Your task to perform on an android device: Clear all items from cart on ebay.com. Search for "razer huntsman" on ebay.com, select the first entry, and add it to the cart. Image 0: 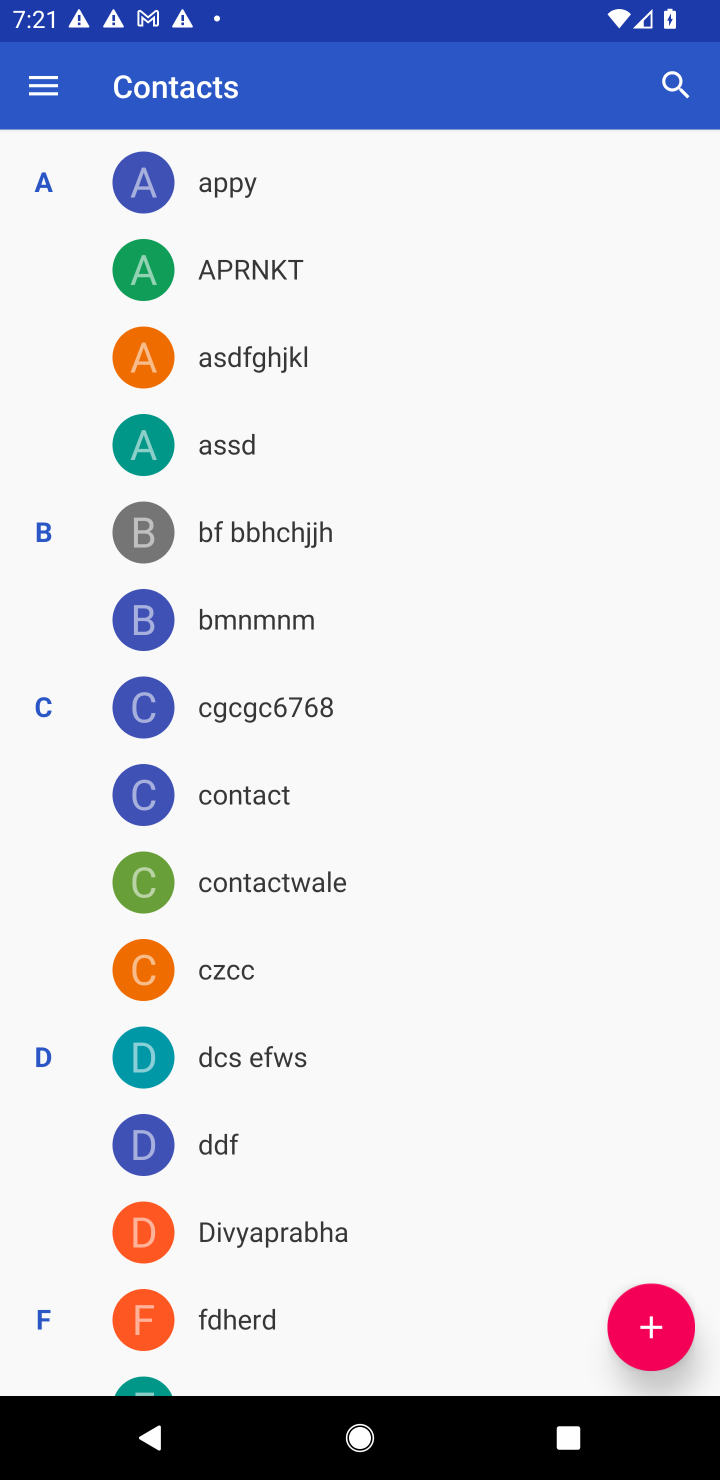
Step 0: press home button
Your task to perform on an android device: Clear all items from cart on ebay.com. Search for "razer huntsman" on ebay.com, select the first entry, and add it to the cart. Image 1: 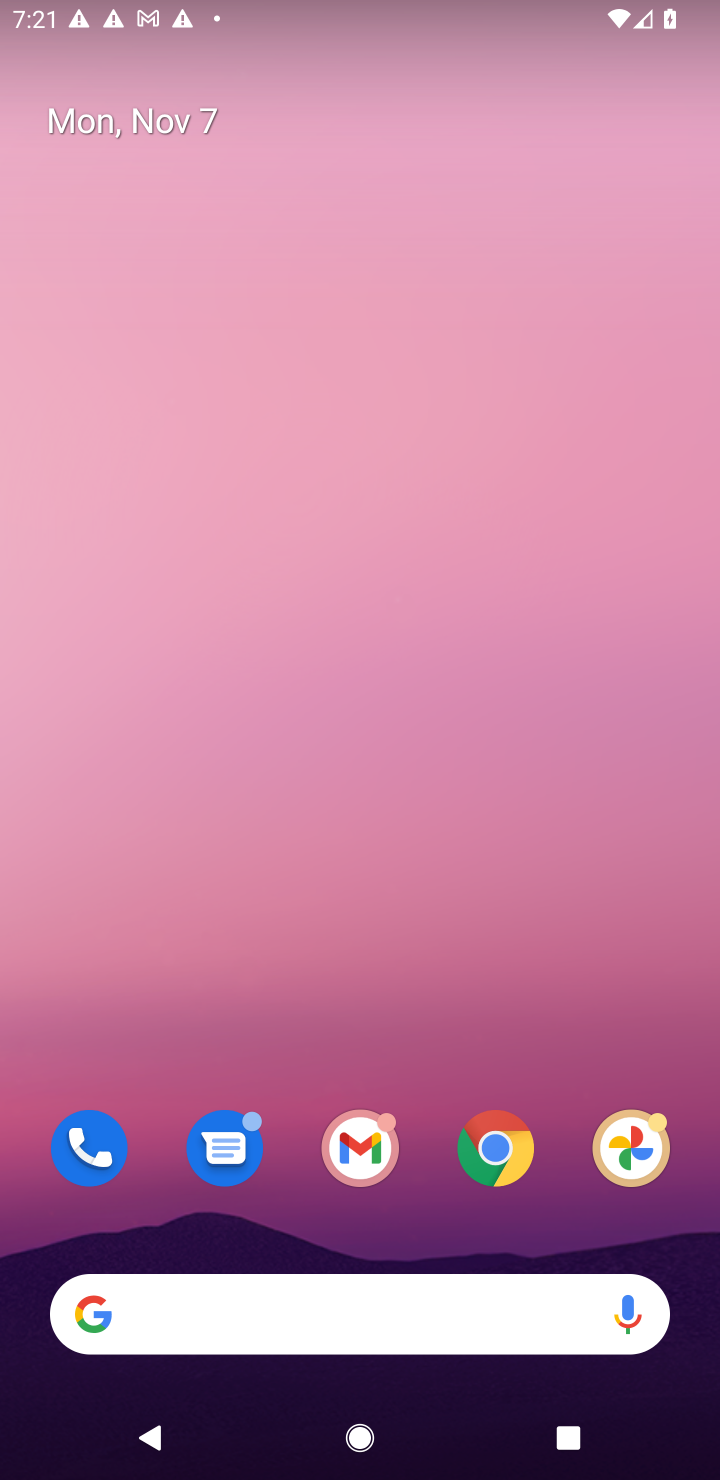
Step 1: click (496, 1150)
Your task to perform on an android device: Clear all items from cart on ebay.com. Search for "razer huntsman" on ebay.com, select the first entry, and add it to the cart. Image 2: 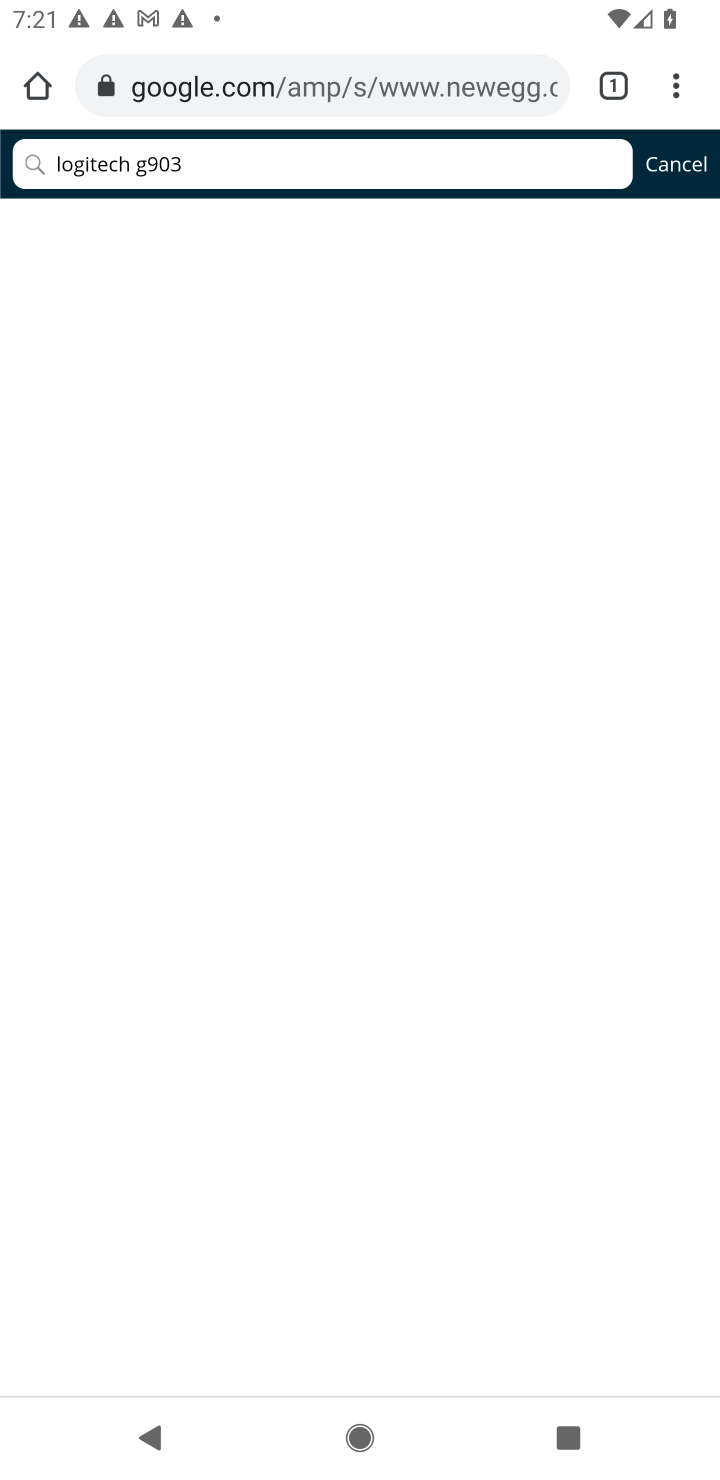
Step 2: click (474, 94)
Your task to perform on an android device: Clear all items from cart on ebay.com. Search for "razer huntsman" on ebay.com, select the first entry, and add it to the cart. Image 3: 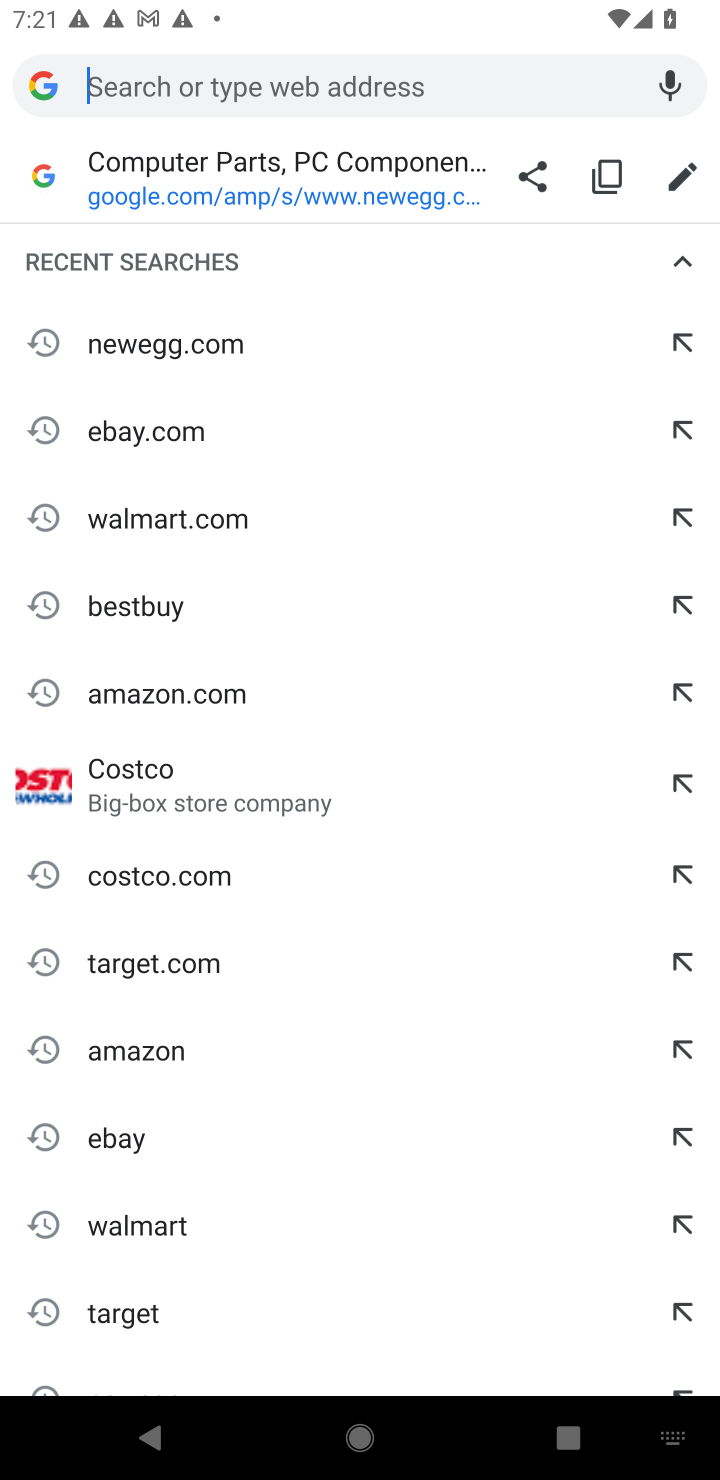
Step 3: type "ebay.com"
Your task to perform on an android device: Clear all items from cart on ebay.com. Search for "razer huntsman" on ebay.com, select the first entry, and add it to the cart. Image 4: 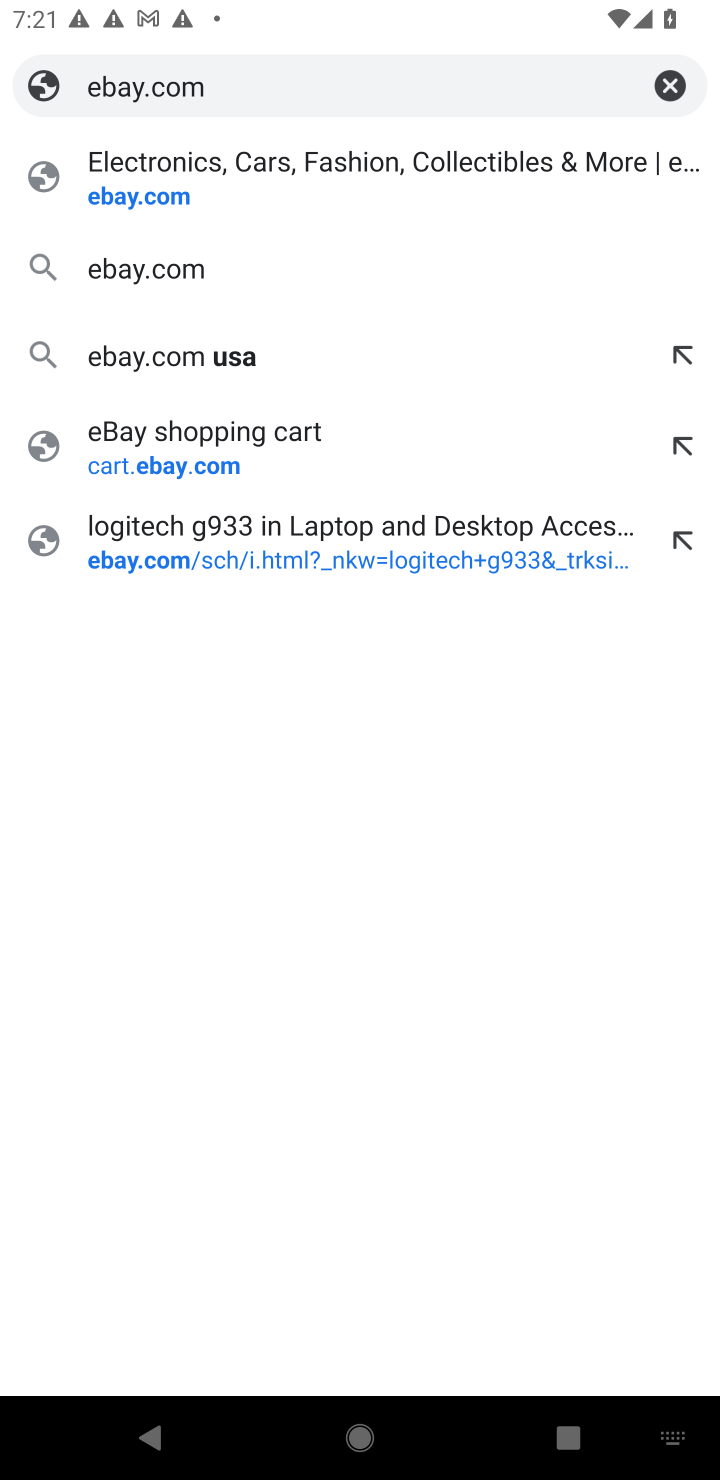
Step 4: click (188, 268)
Your task to perform on an android device: Clear all items from cart on ebay.com. Search for "razer huntsman" on ebay.com, select the first entry, and add it to the cart. Image 5: 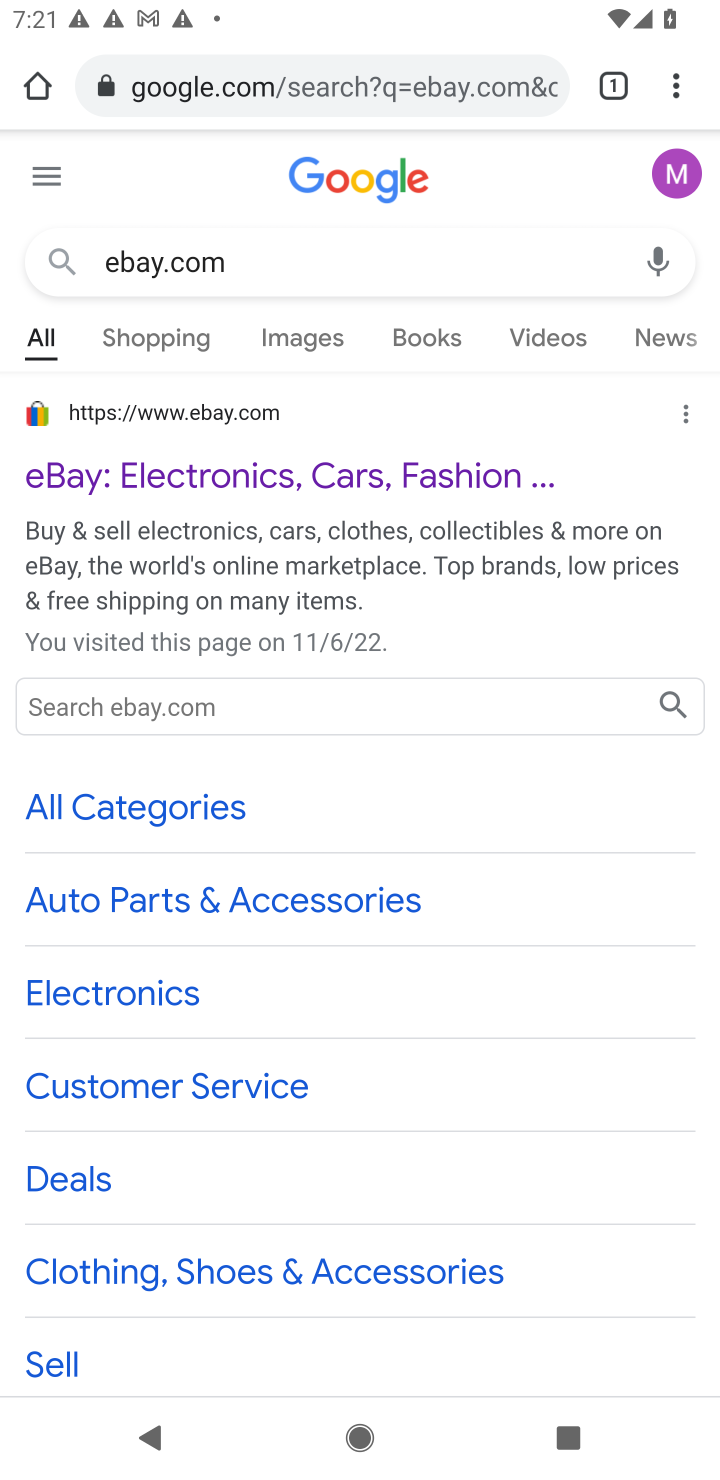
Step 5: click (232, 405)
Your task to perform on an android device: Clear all items from cart on ebay.com. Search for "razer huntsman" on ebay.com, select the first entry, and add it to the cart. Image 6: 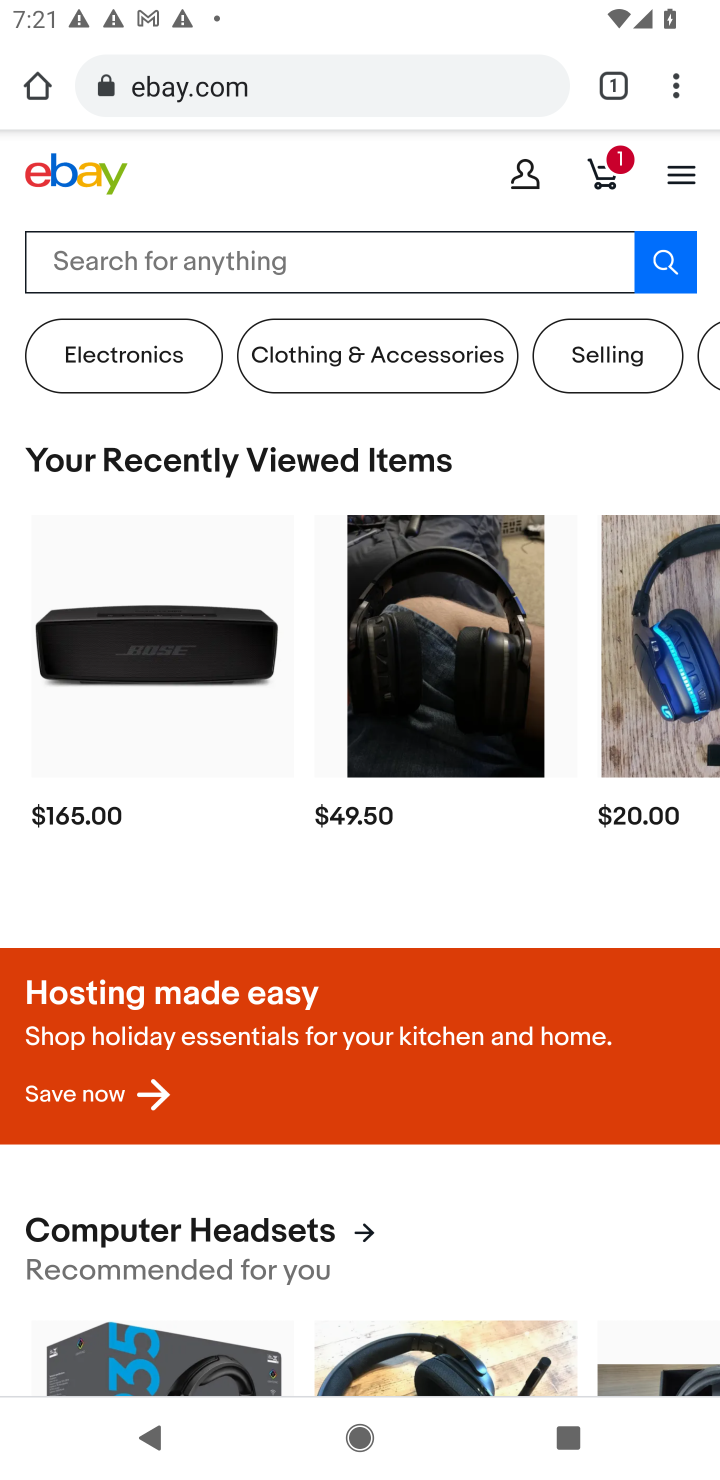
Step 6: click (609, 178)
Your task to perform on an android device: Clear all items from cart on ebay.com. Search for "razer huntsman" on ebay.com, select the first entry, and add it to the cart. Image 7: 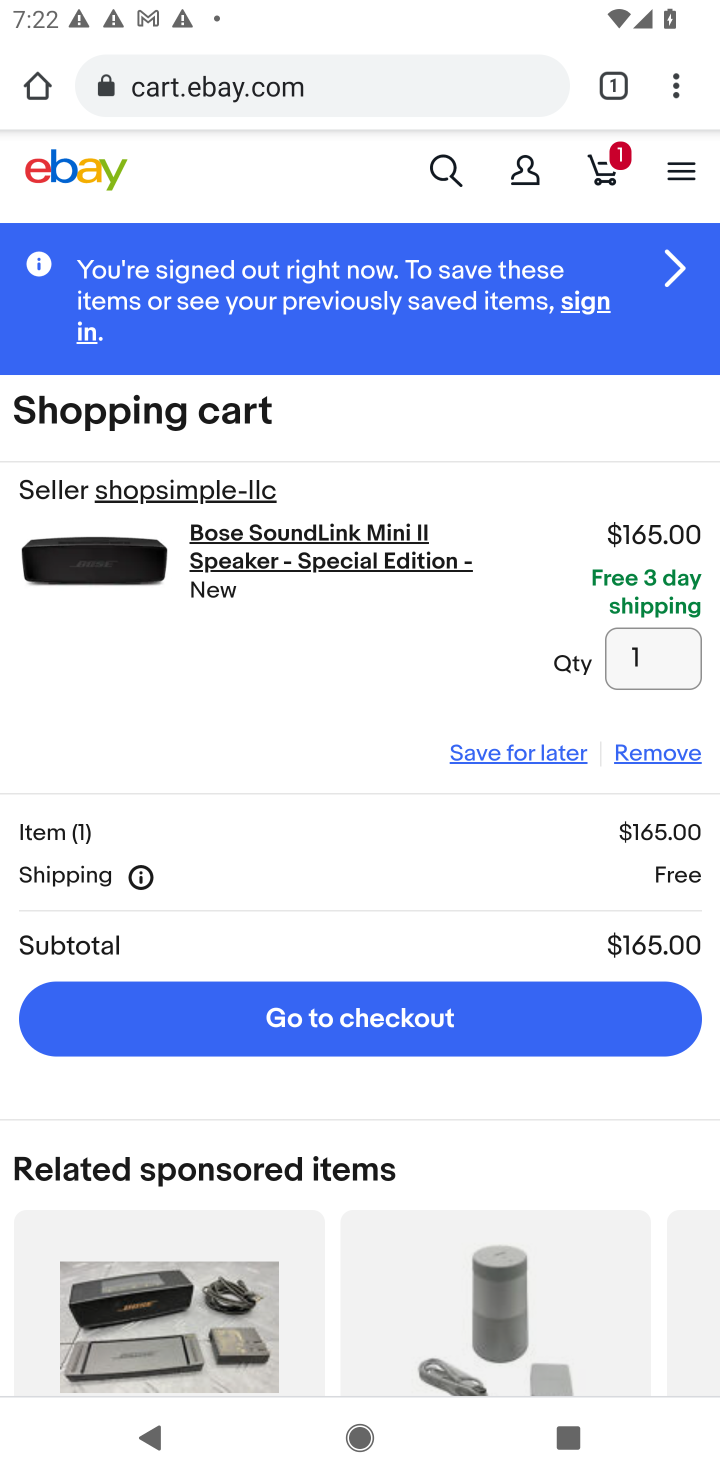
Step 7: click (596, 172)
Your task to perform on an android device: Clear all items from cart on ebay.com. Search for "razer huntsman" on ebay.com, select the first entry, and add it to the cart. Image 8: 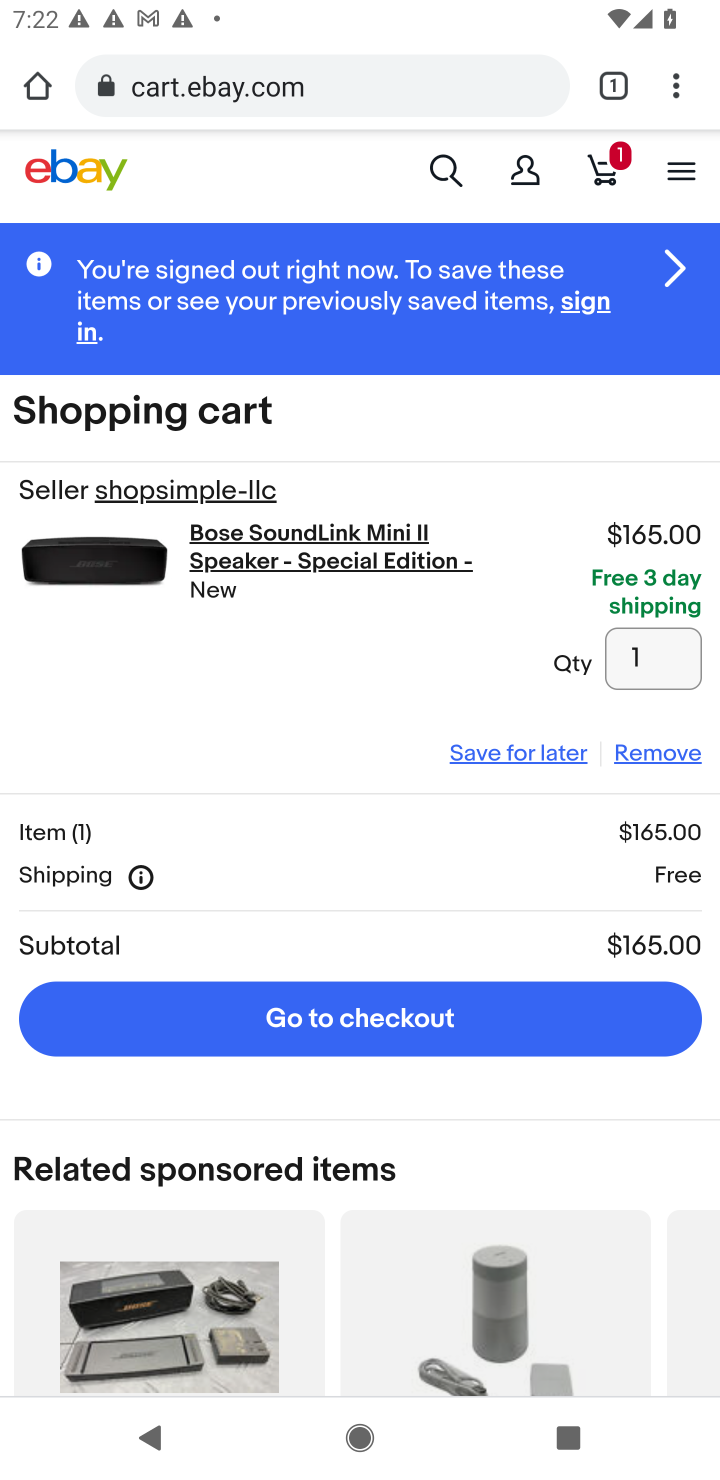
Step 8: click (658, 759)
Your task to perform on an android device: Clear all items from cart on ebay.com. Search for "razer huntsman" on ebay.com, select the first entry, and add it to the cart. Image 9: 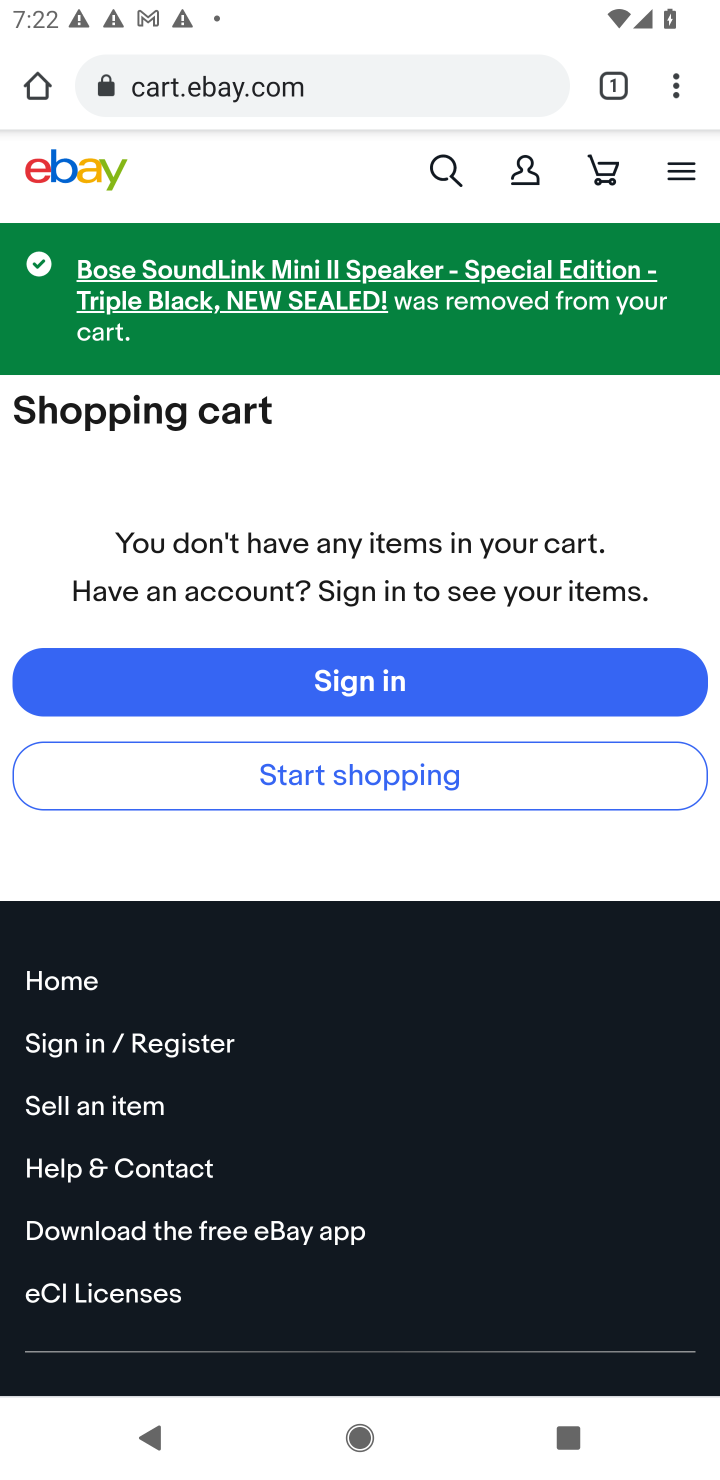
Step 9: click (436, 173)
Your task to perform on an android device: Clear all items from cart on ebay.com. Search for "razer huntsman" on ebay.com, select the first entry, and add it to the cart. Image 10: 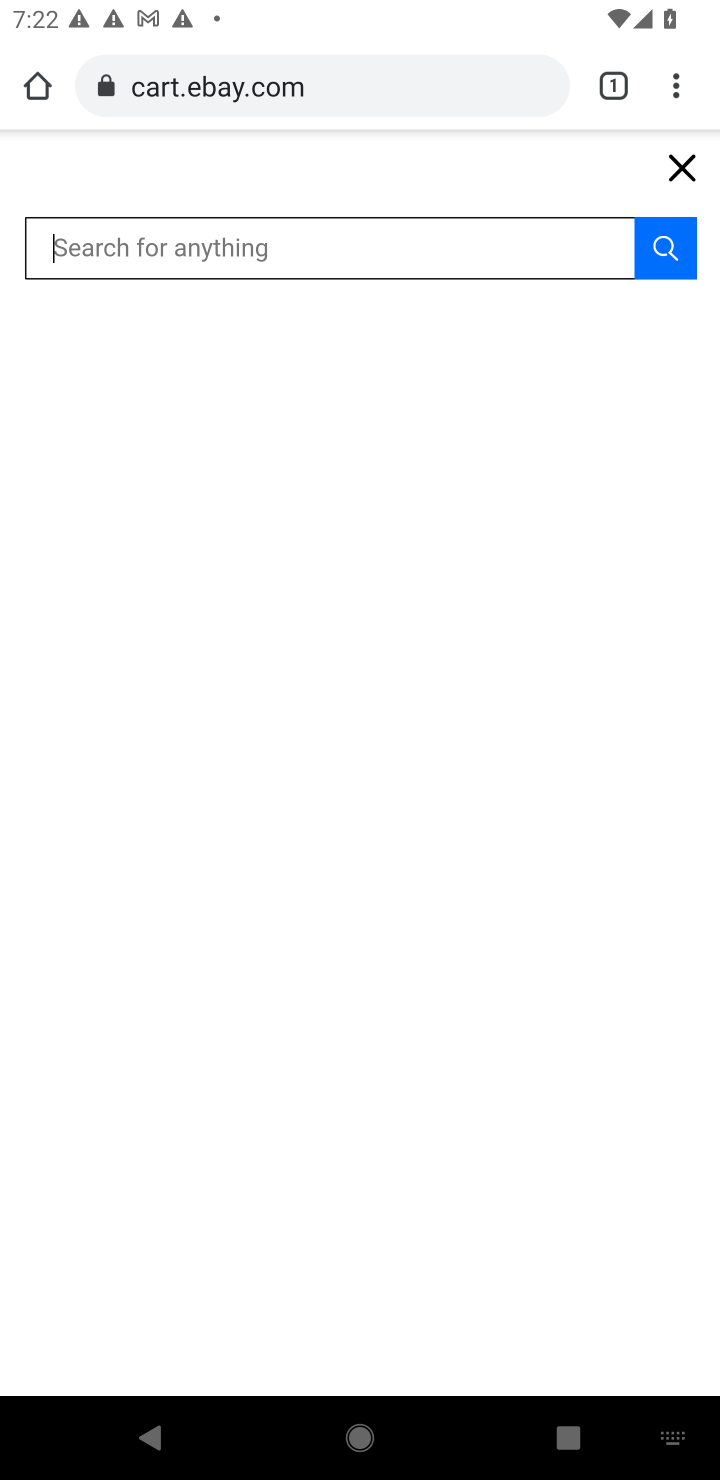
Step 10: type "razer huntsman"
Your task to perform on an android device: Clear all items from cart on ebay.com. Search for "razer huntsman" on ebay.com, select the first entry, and add it to the cart. Image 11: 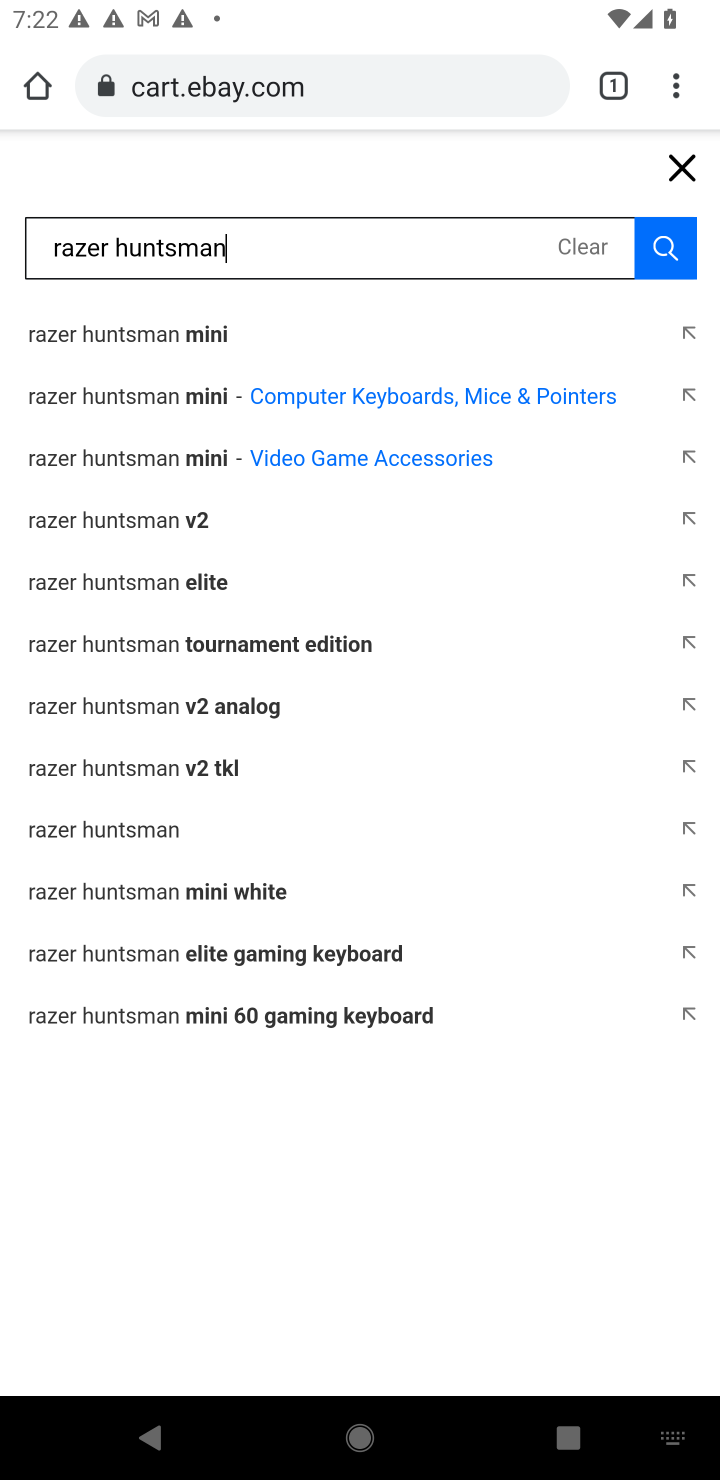
Step 11: click (150, 830)
Your task to perform on an android device: Clear all items from cart on ebay.com. Search for "razer huntsman" on ebay.com, select the first entry, and add it to the cart. Image 12: 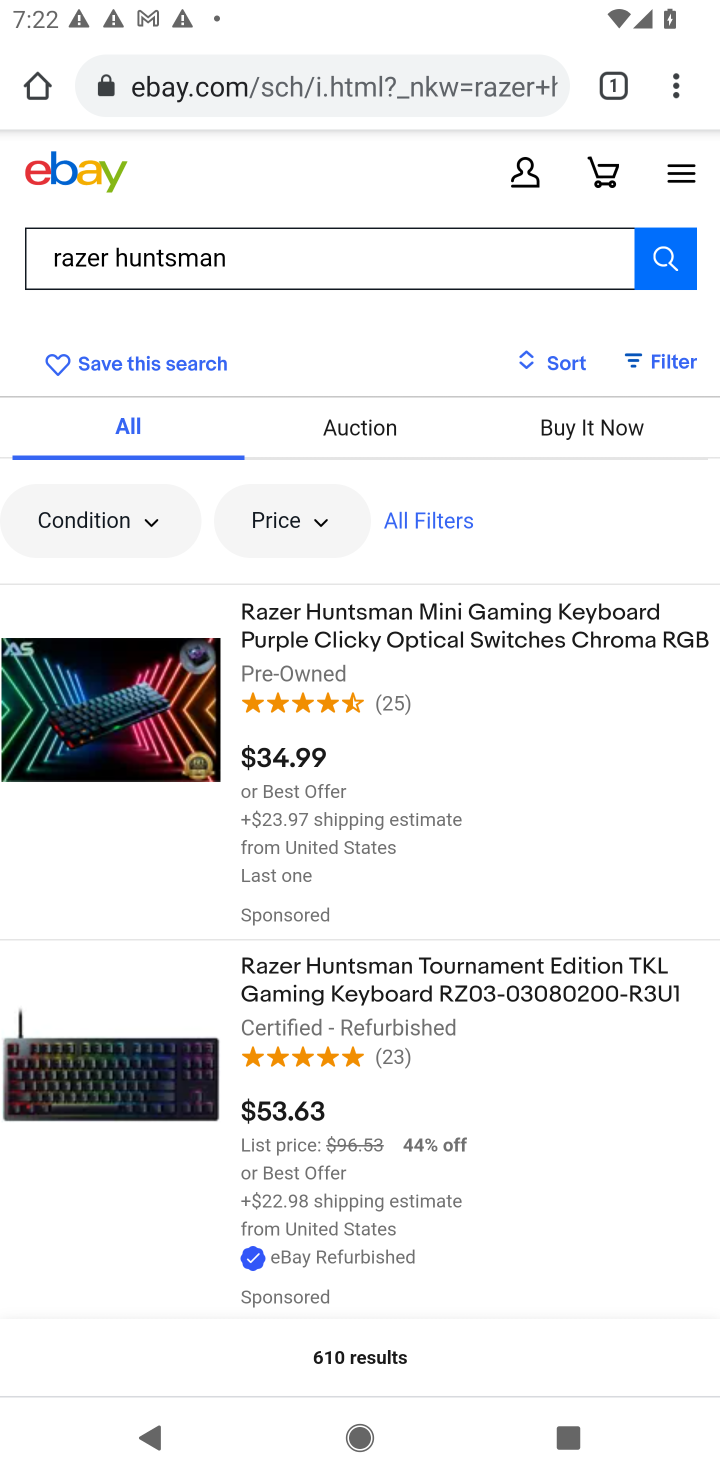
Step 12: click (152, 683)
Your task to perform on an android device: Clear all items from cart on ebay.com. Search for "razer huntsman" on ebay.com, select the first entry, and add it to the cart. Image 13: 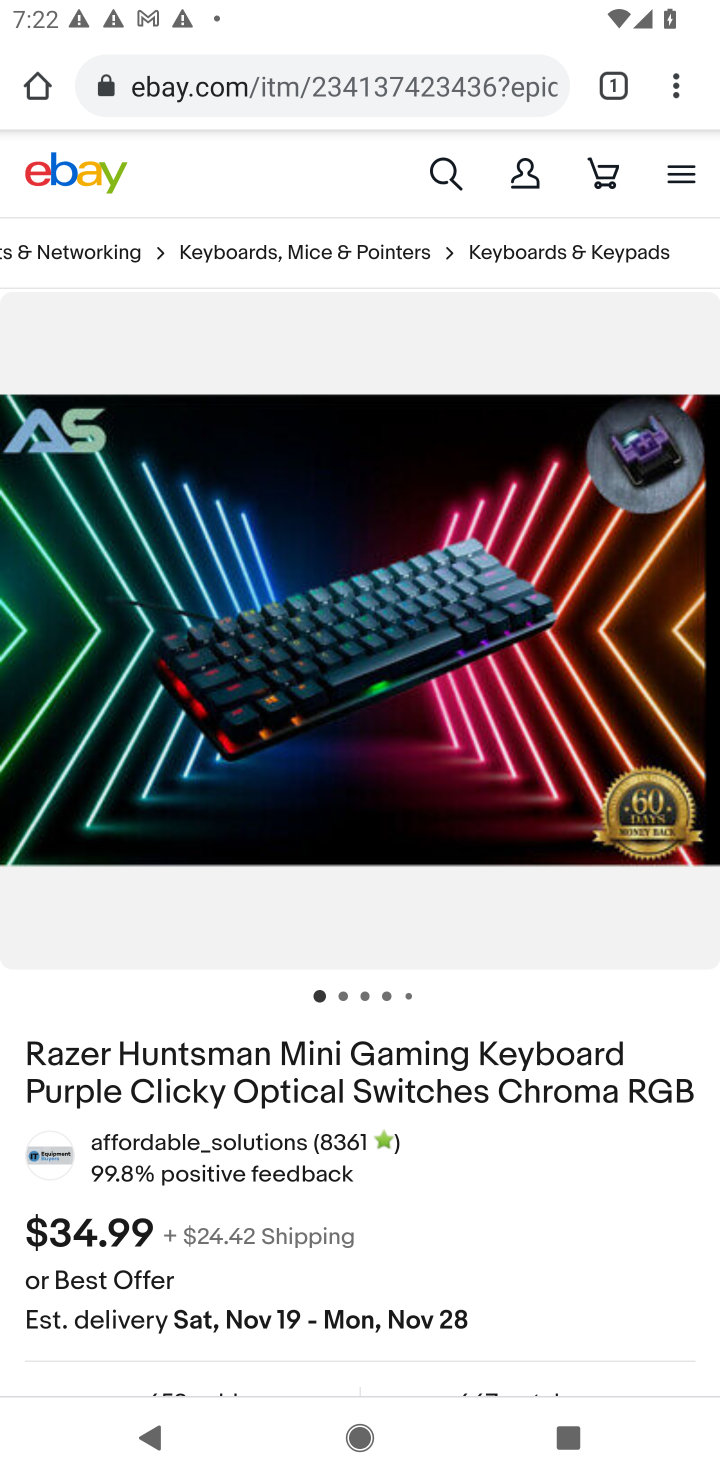
Step 13: drag from (494, 1207) to (464, 522)
Your task to perform on an android device: Clear all items from cart on ebay.com. Search for "razer huntsman" on ebay.com, select the first entry, and add it to the cart. Image 14: 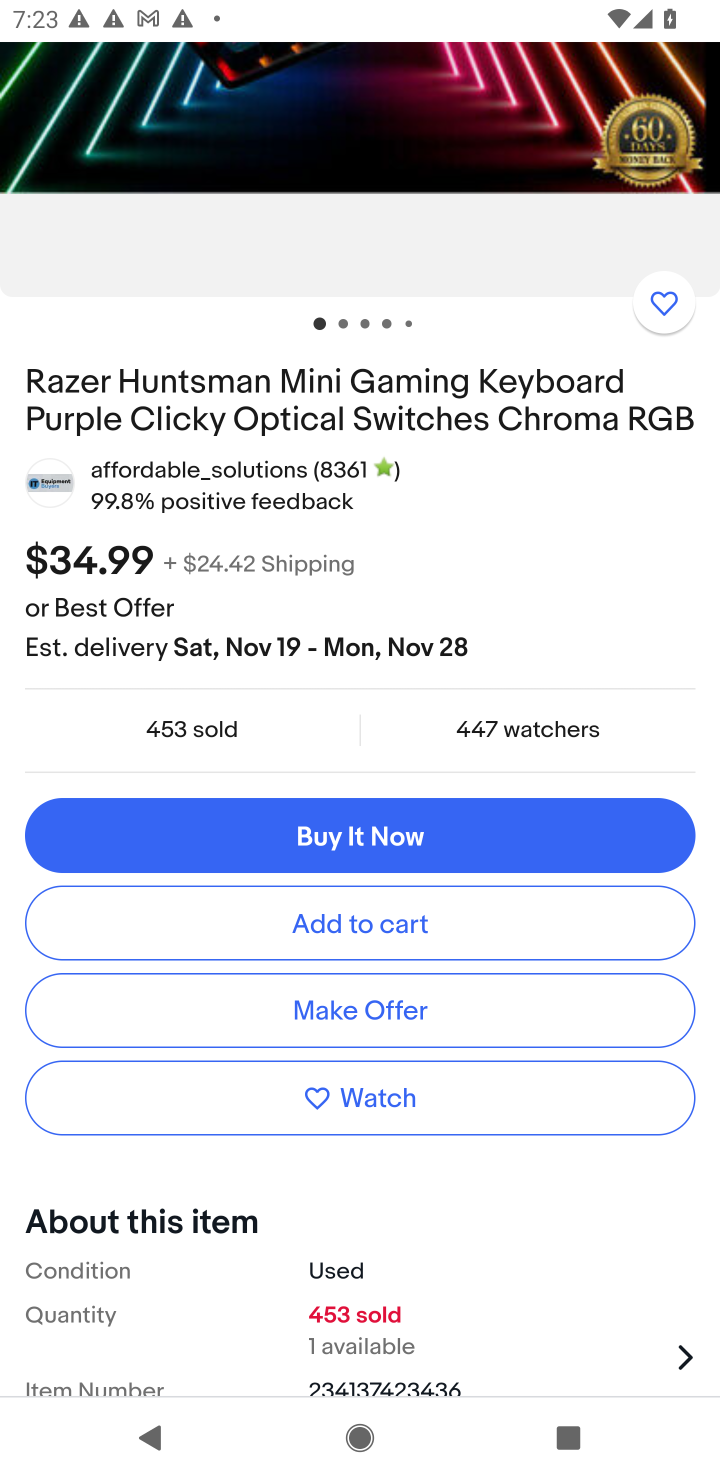
Step 14: click (367, 927)
Your task to perform on an android device: Clear all items from cart on ebay.com. Search for "razer huntsman" on ebay.com, select the first entry, and add it to the cart. Image 15: 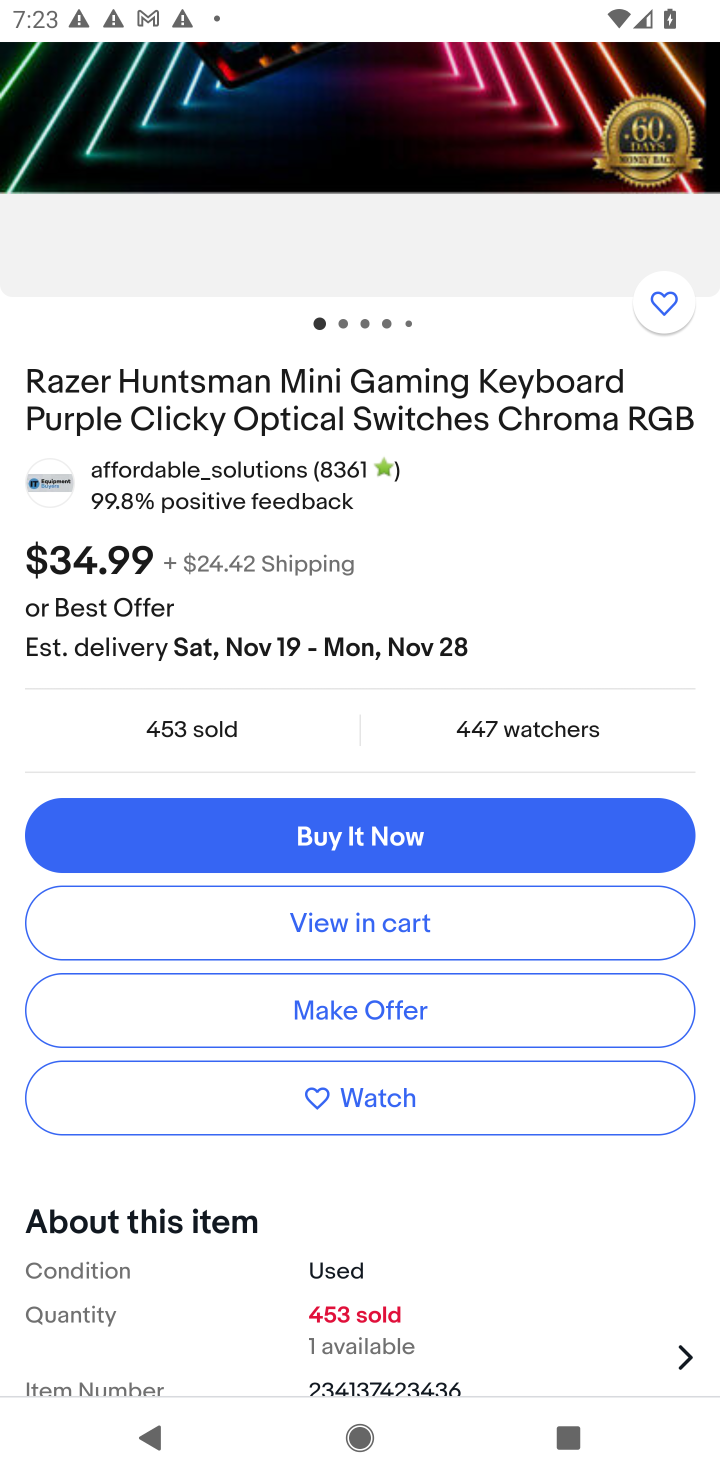
Step 15: click (339, 934)
Your task to perform on an android device: Clear all items from cart on ebay.com. Search for "razer huntsman" on ebay.com, select the first entry, and add it to the cart. Image 16: 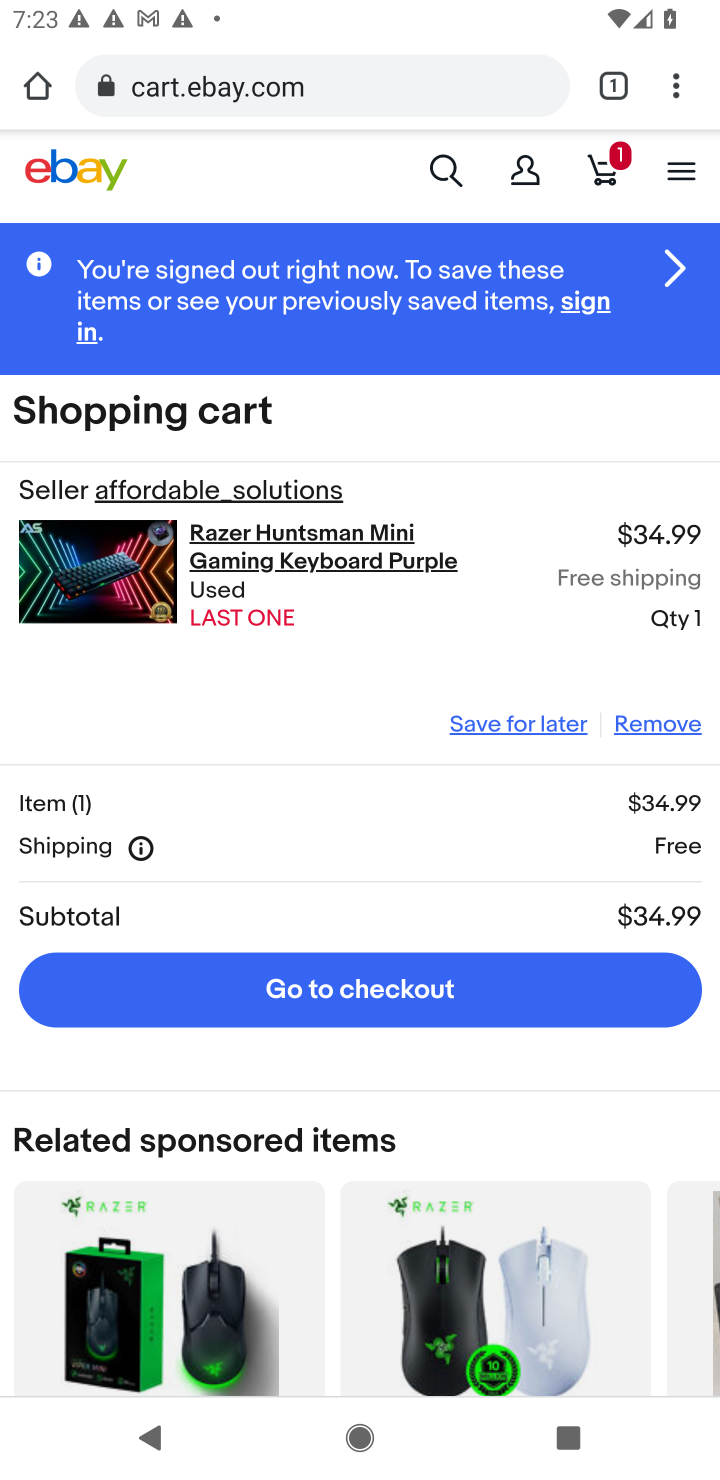
Step 16: task complete